Your task to perform on an android device: check storage Image 0: 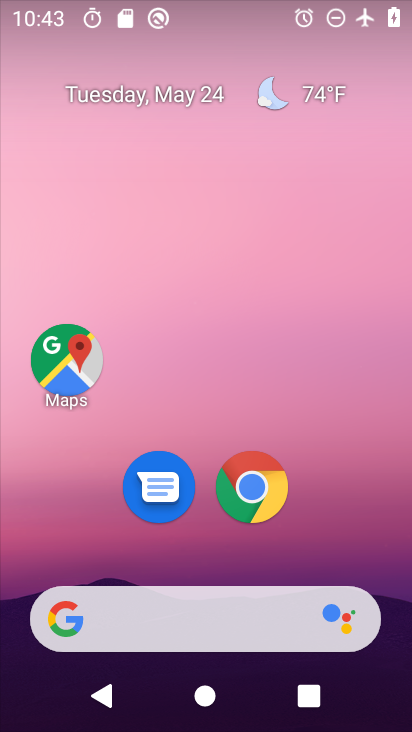
Step 0: drag from (387, 575) to (362, 1)
Your task to perform on an android device: check storage Image 1: 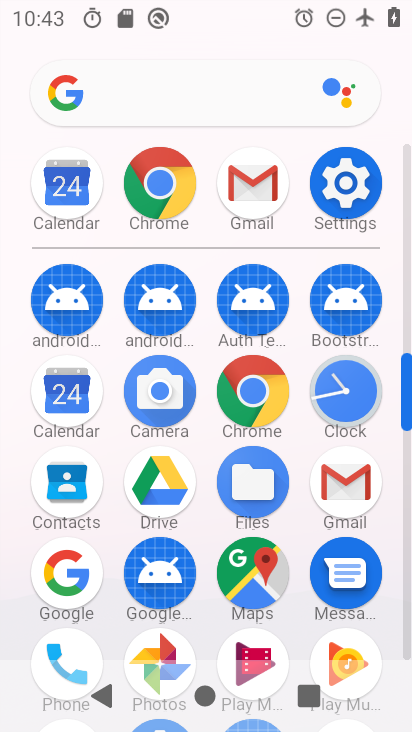
Step 1: click (344, 185)
Your task to perform on an android device: check storage Image 2: 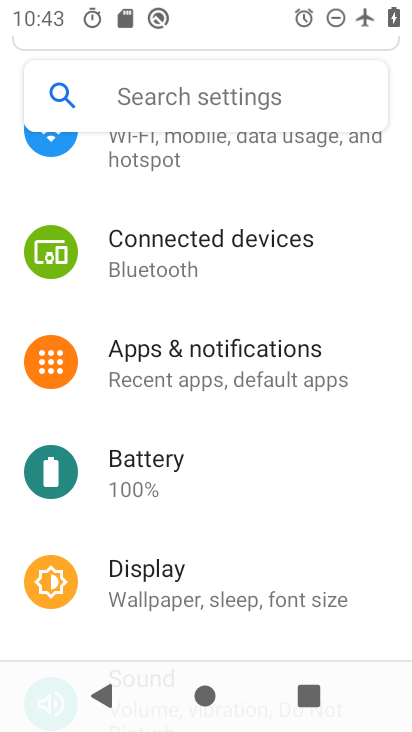
Step 2: drag from (309, 268) to (272, 117)
Your task to perform on an android device: check storage Image 3: 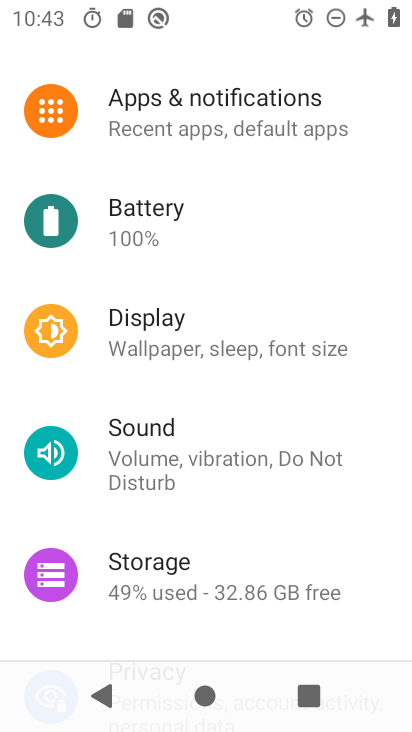
Step 3: click (118, 592)
Your task to perform on an android device: check storage Image 4: 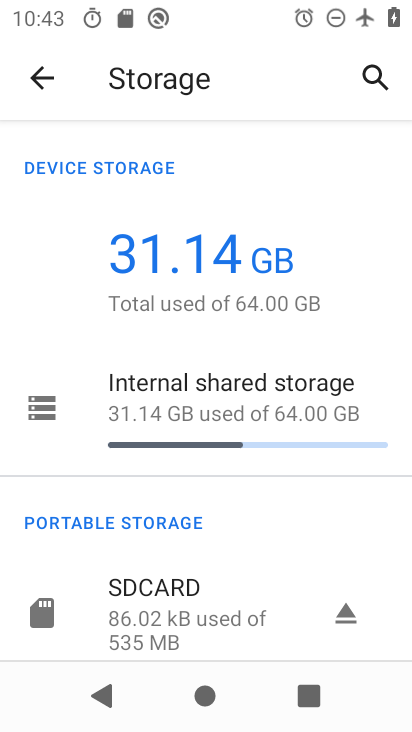
Step 4: click (185, 372)
Your task to perform on an android device: check storage Image 5: 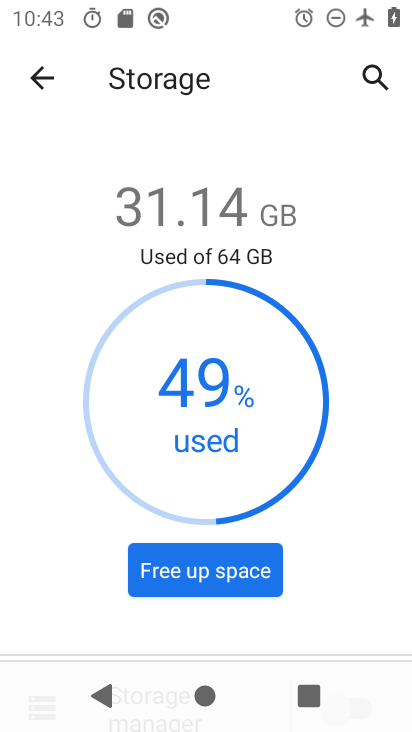
Step 5: task complete